Your task to perform on an android device: Turn on the flashlight Image 0: 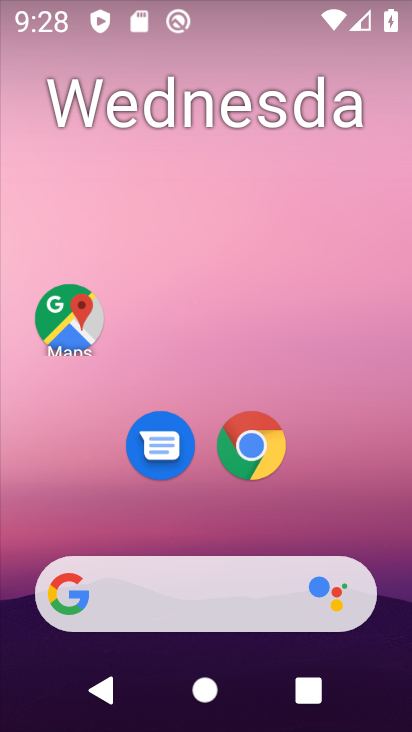
Step 0: drag from (188, 476) to (270, 28)
Your task to perform on an android device: Turn on the flashlight Image 1: 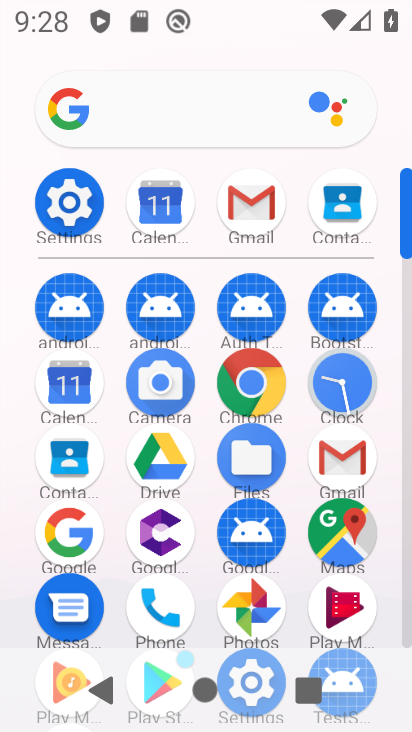
Step 1: click (58, 197)
Your task to perform on an android device: Turn on the flashlight Image 2: 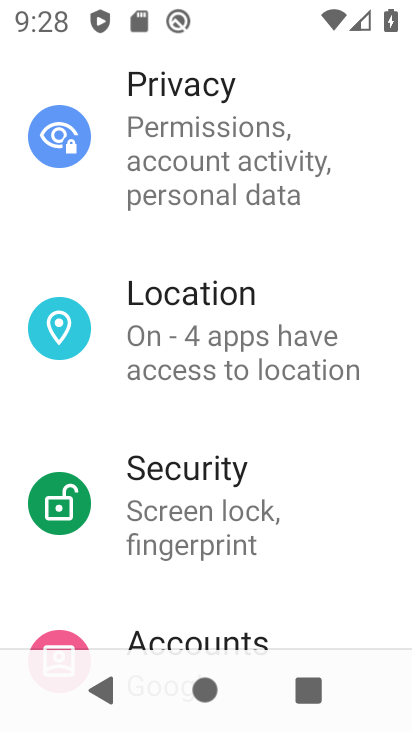
Step 2: click (200, 587)
Your task to perform on an android device: Turn on the flashlight Image 3: 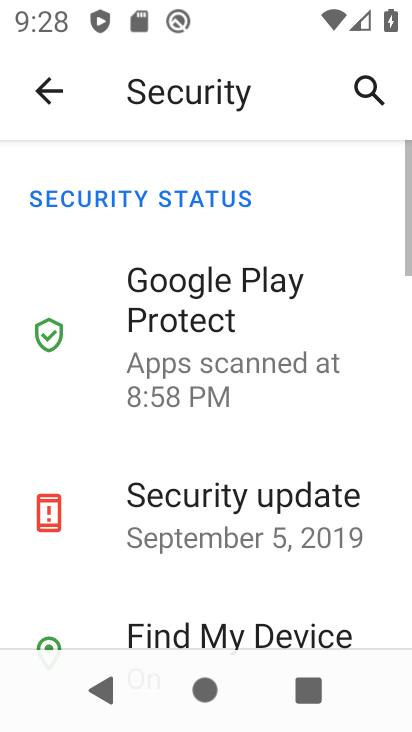
Step 3: click (37, 81)
Your task to perform on an android device: Turn on the flashlight Image 4: 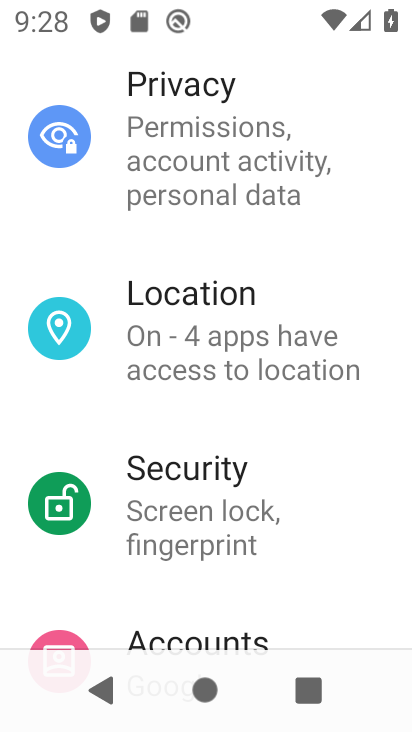
Step 4: drag from (302, 266) to (211, 627)
Your task to perform on an android device: Turn on the flashlight Image 5: 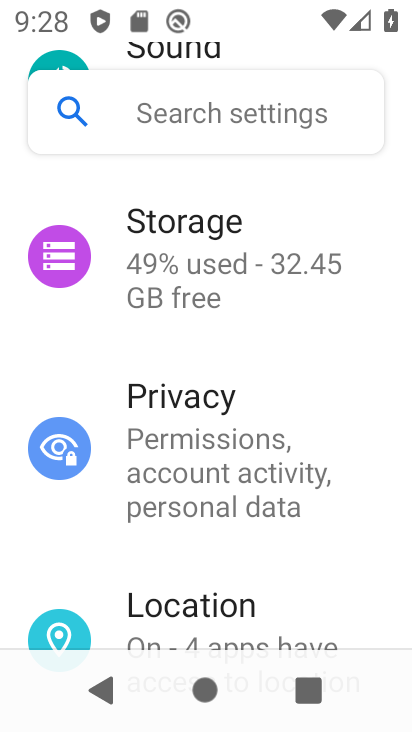
Step 5: click (222, 108)
Your task to perform on an android device: Turn on the flashlight Image 6: 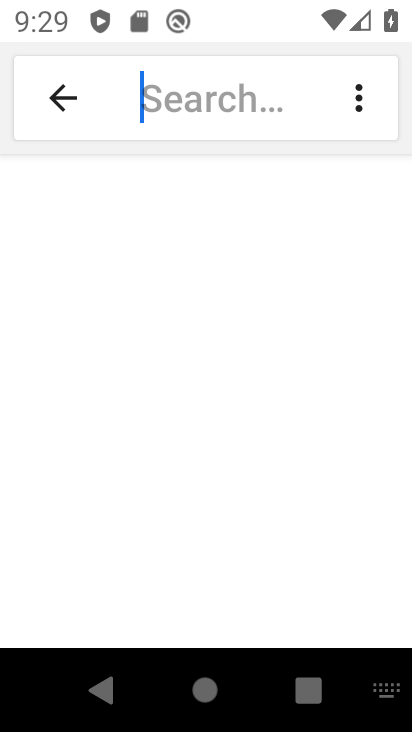
Step 6: click (222, 111)
Your task to perform on an android device: Turn on the flashlight Image 7: 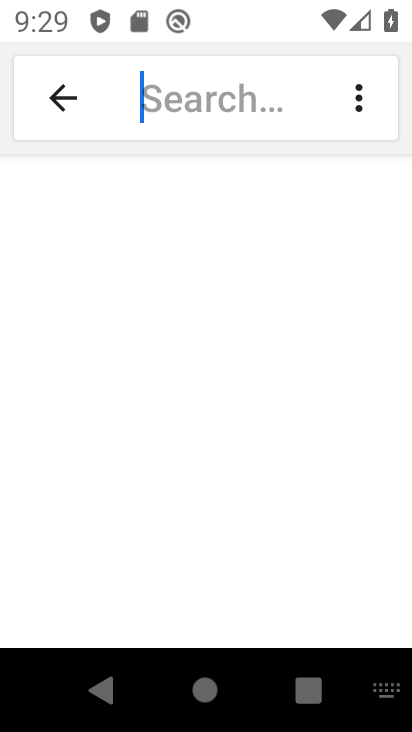
Step 7: type "flashlight"
Your task to perform on an android device: Turn on the flashlight Image 8: 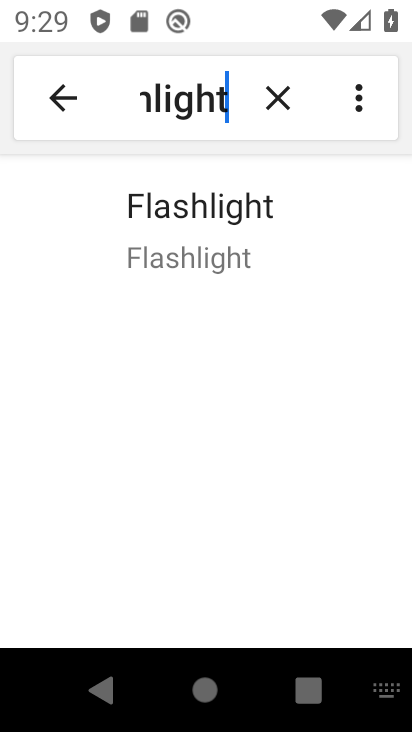
Step 8: click (195, 215)
Your task to perform on an android device: Turn on the flashlight Image 9: 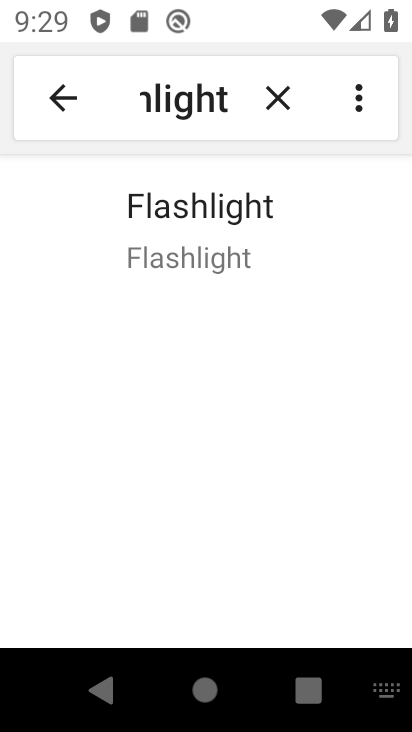
Step 9: task complete